Your task to perform on an android device: Go to accessibility settings Image 0: 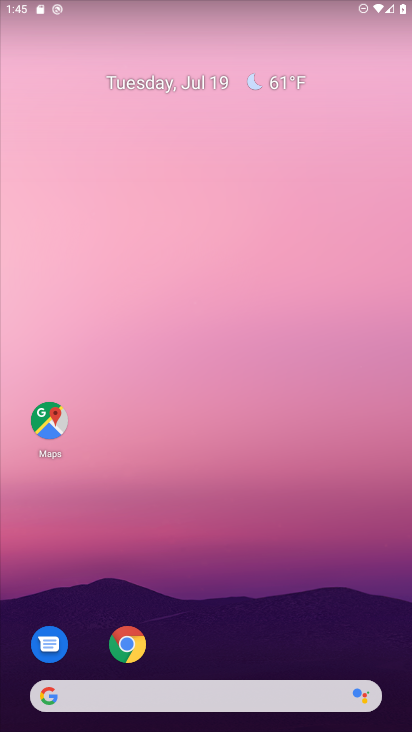
Step 0: drag from (186, 673) to (108, 83)
Your task to perform on an android device: Go to accessibility settings Image 1: 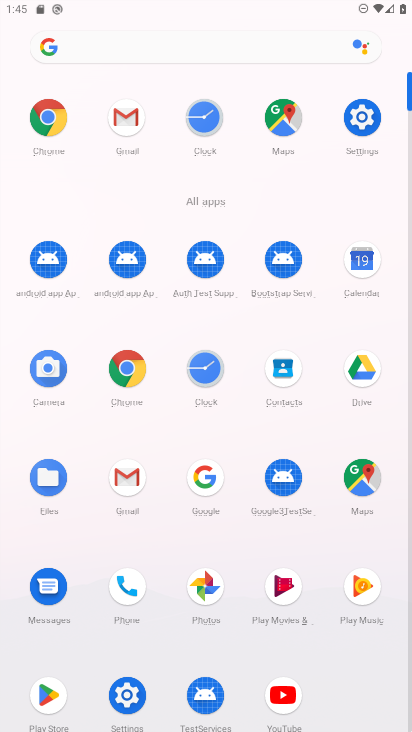
Step 1: click (141, 688)
Your task to perform on an android device: Go to accessibility settings Image 2: 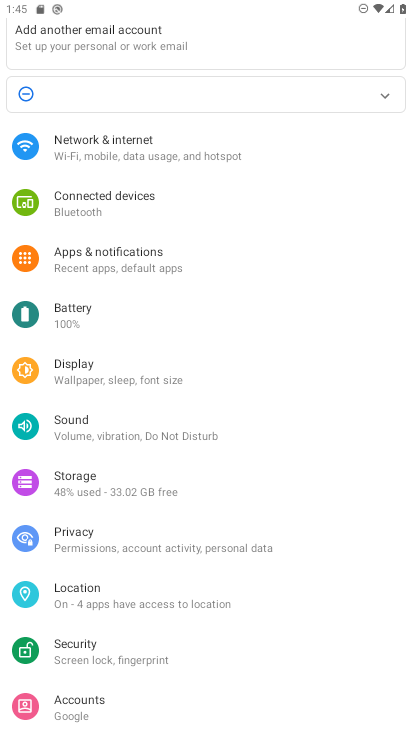
Step 2: drag from (170, 547) to (168, 25)
Your task to perform on an android device: Go to accessibility settings Image 3: 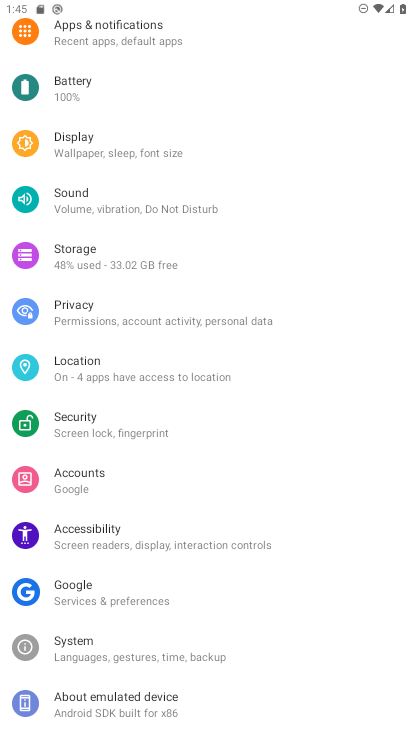
Step 3: click (94, 525)
Your task to perform on an android device: Go to accessibility settings Image 4: 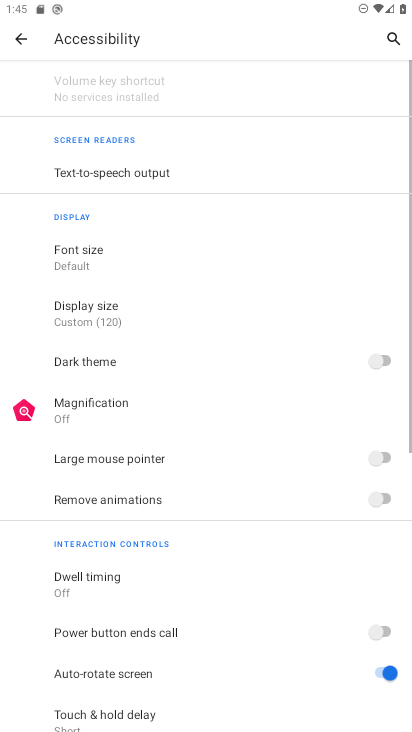
Step 4: task complete